Your task to perform on an android device: Open the stopwatch Image 0: 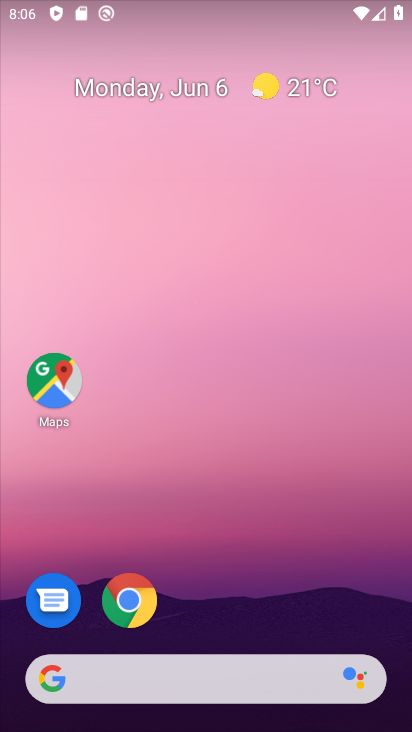
Step 0: drag from (266, 571) to (209, 51)
Your task to perform on an android device: Open the stopwatch Image 1: 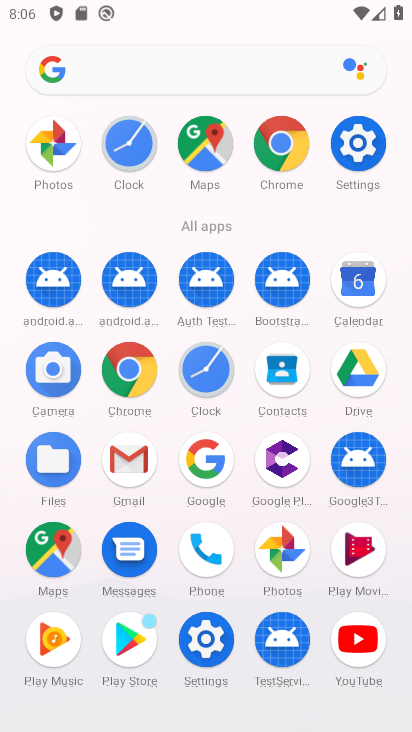
Step 1: drag from (8, 462) to (8, 216)
Your task to perform on an android device: Open the stopwatch Image 2: 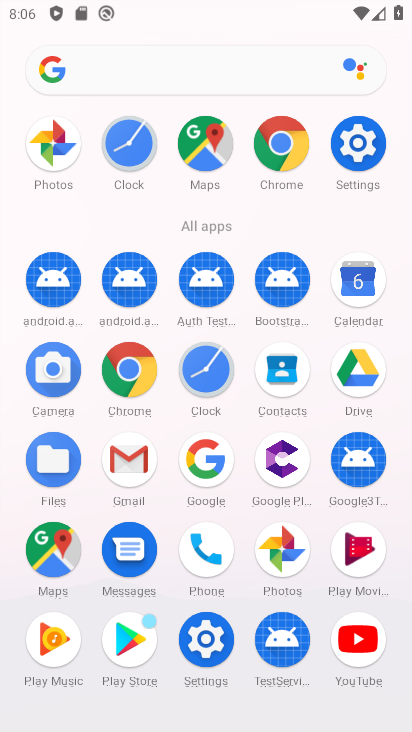
Step 2: click (128, 143)
Your task to perform on an android device: Open the stopwatch Image 3: 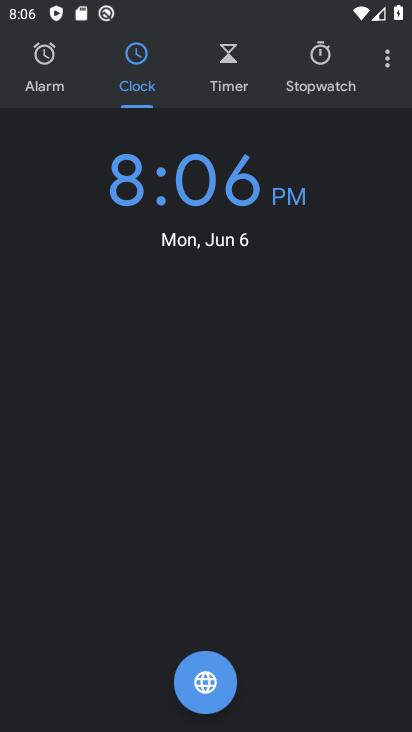
Step 3: click (321, 62)
Your task to perform on an android device: Open the stopwatch Image 4: 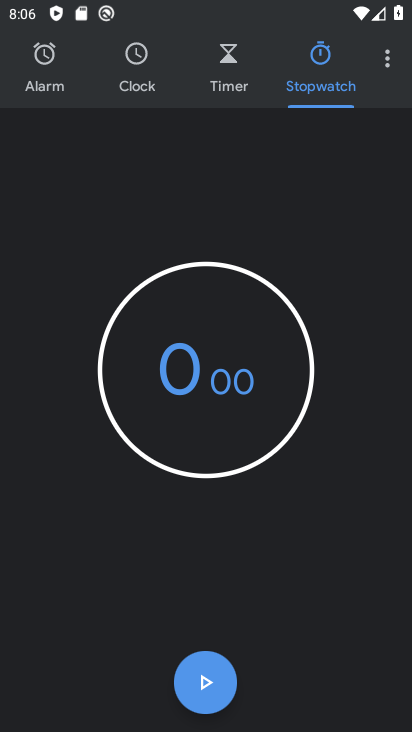
Step 4: click (211, 673)
Your task to perform on an android device: Open the stopwatch Image 5: 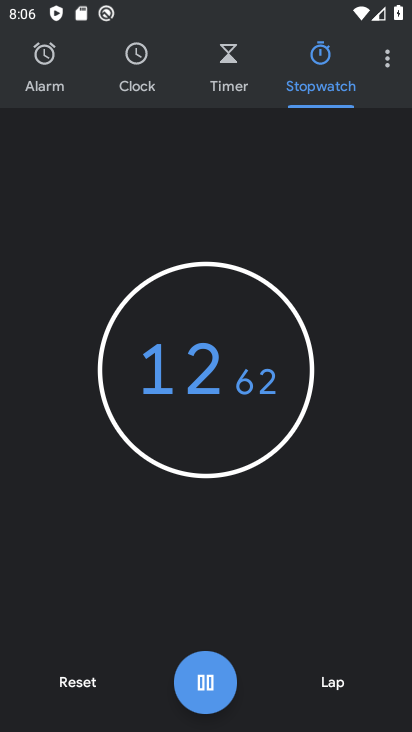
Step 5: task complete